Your task to perform on an android device: turn off wifi Image 0: 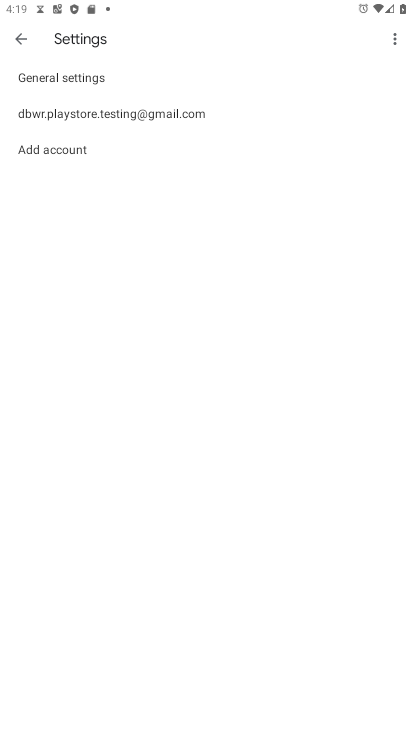
Step 0: press back button
Your task to perform on an android device: turn off wifi Image 1: 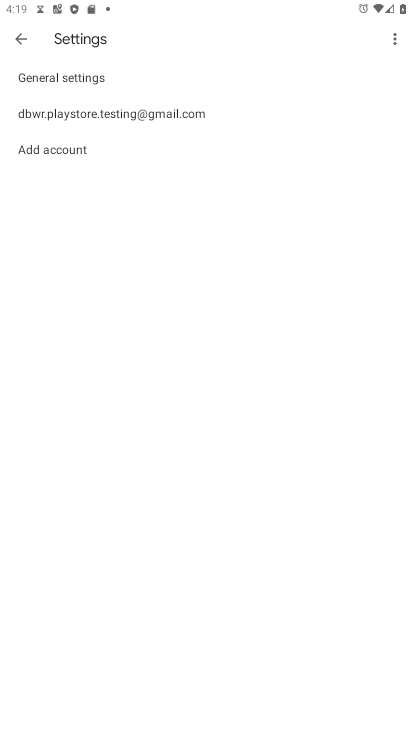
Step 1: press back button
Your task to perform on an android device: turn off wifi Image 2: 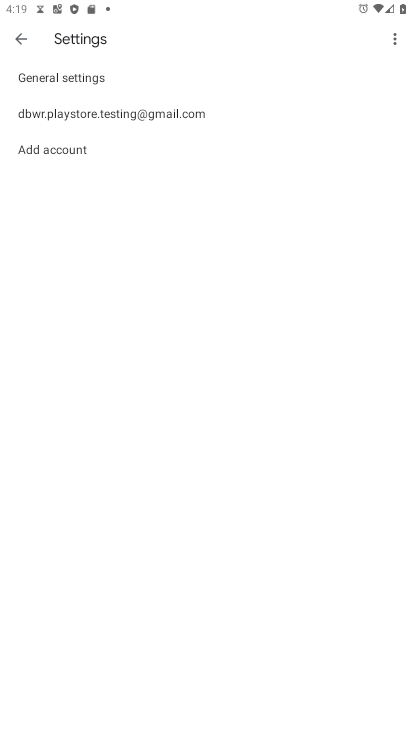
Step 2: press back button
Your task to perform on an android device: turn off wifi Image 3: 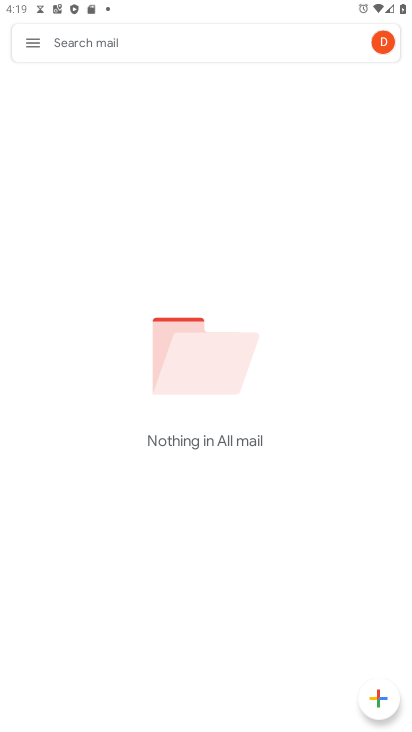
Step 3: press back button
Your task to perform on an android device: turn off wifi Image 4: 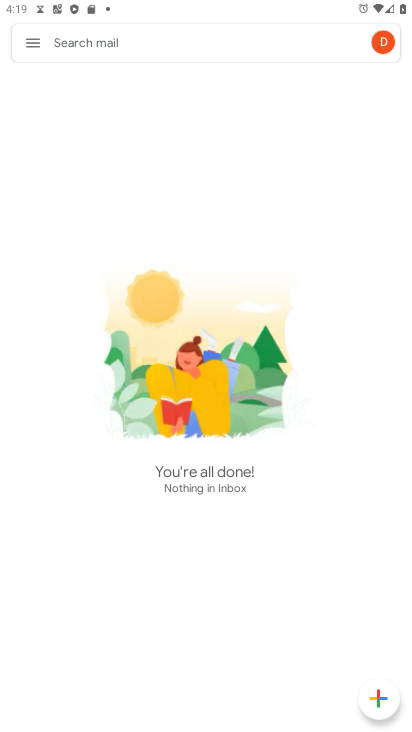
Step 4: press home button
Your task to perform on an android device: turn off wifi Image 5: 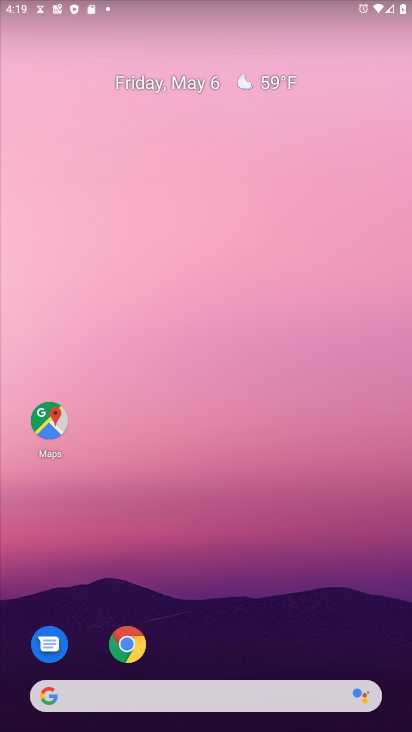
Step 5: drag from (263, 606) to (221, 43)
Your task to perform on an android device: turn off wifi Image 6: 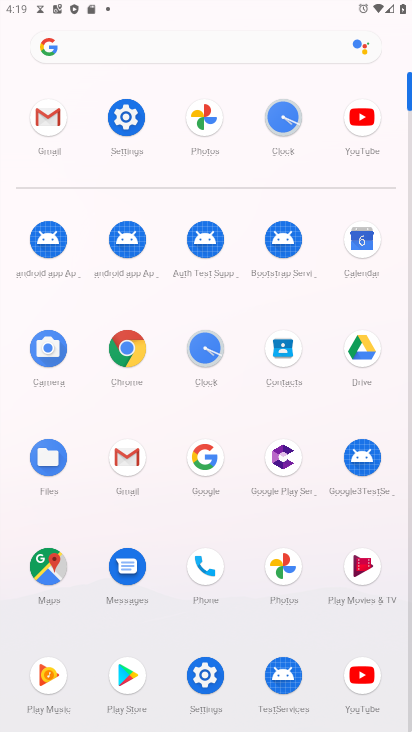
Step 6: click (126, 114)
Your task to perform on an android device: turn off wifi Image 7: 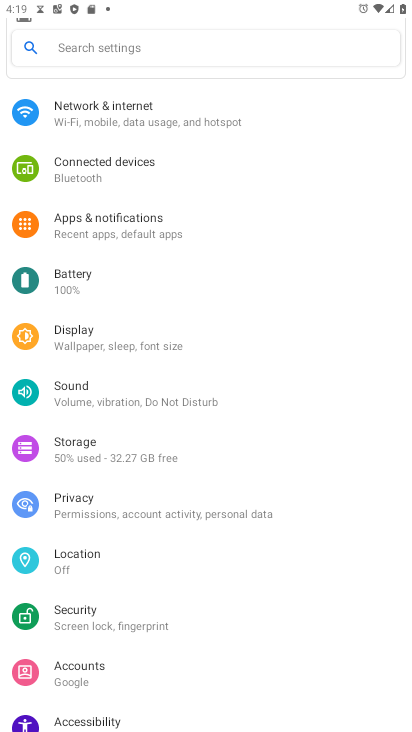
Step 7: click (161, 125)
Your task to perform on an android device: turn off wifi Image 8: 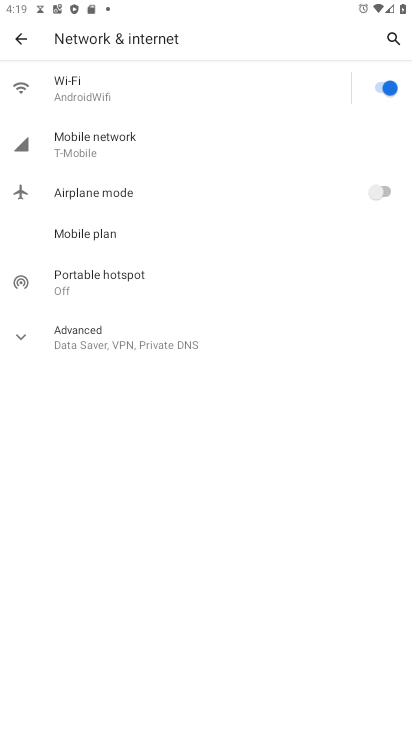
Step 8: click (387, 85)
Your task to perform on an android device: turn off wifi Image 9: 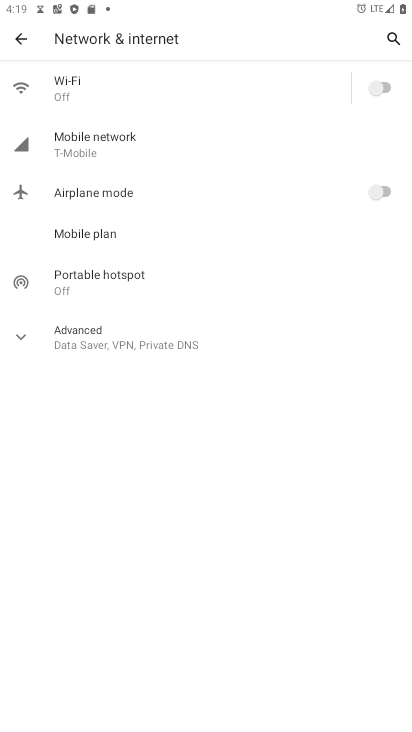
Step 9: task complete